Your task to perform on an android device: turn off smart reply in the gmail app Image 0: 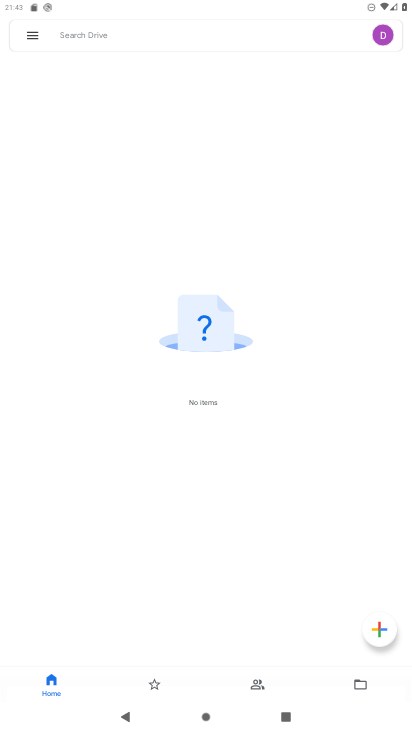
Step 0: press home button
Your task to perform on an android device: turn off smart reply in the gmail app Image 1: 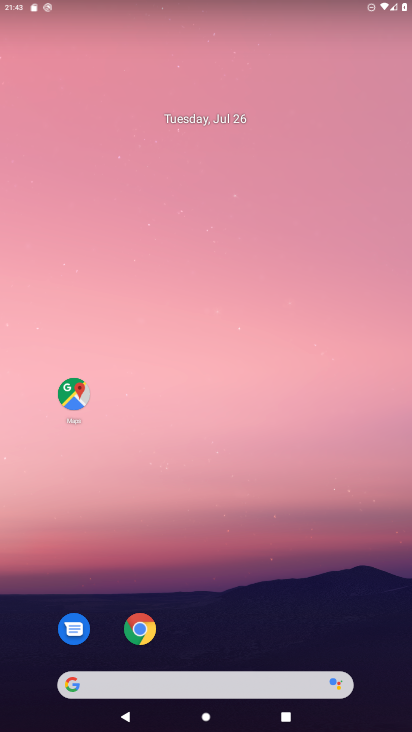
Step 1: drag from (258, 633) to (276, 3)
Your task to perform on an android device: turn off smart reply in the gmail app Image 2: 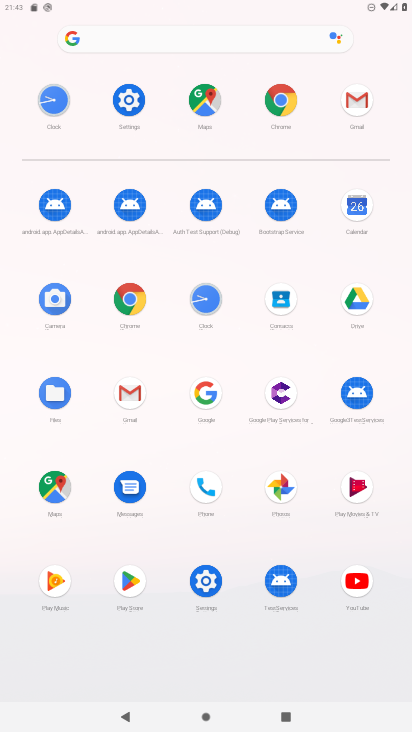
Step 2: click (129, 391)
Your task to perform on an android device: turn off smart reply in the gmail app Image 3: 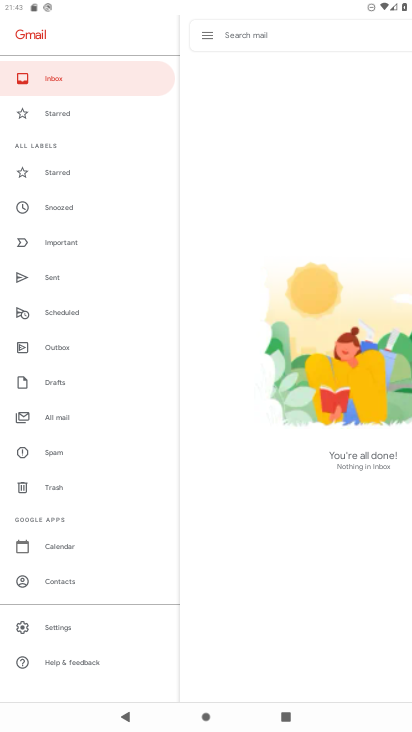
Step 3: click (212, 27)
Your task to perform on an android device: turn off smart reply in the gmail app Image 4: 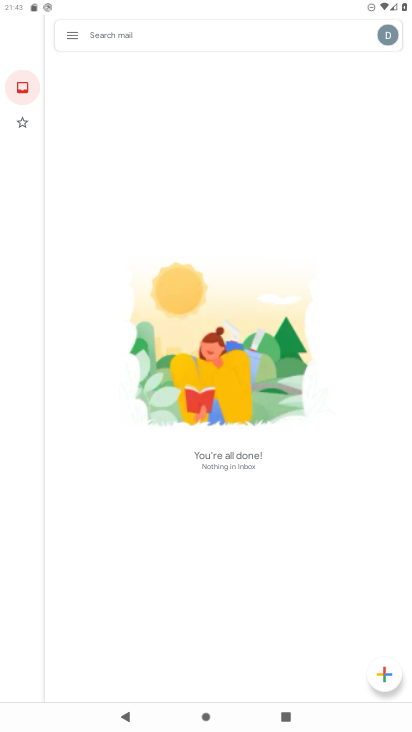
Step 4: click (68, 38)
Your task to perform on an android device: turn off smart reply in the gmail app Image 5: 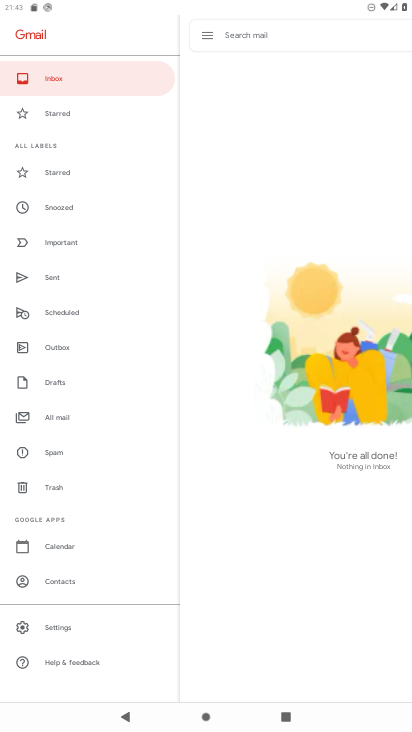
Step 5: click (53, 619)
Your task to perform on an android device: turn off smart reply in the gmail app Image 6: 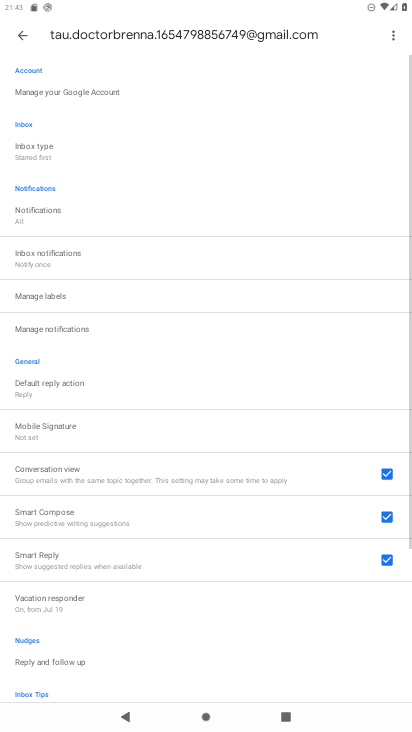
Step 6: drag from (277, 599) to (300, 144)
Your task to perform on an android device: turn off smart reply in the gmail app Image 7: 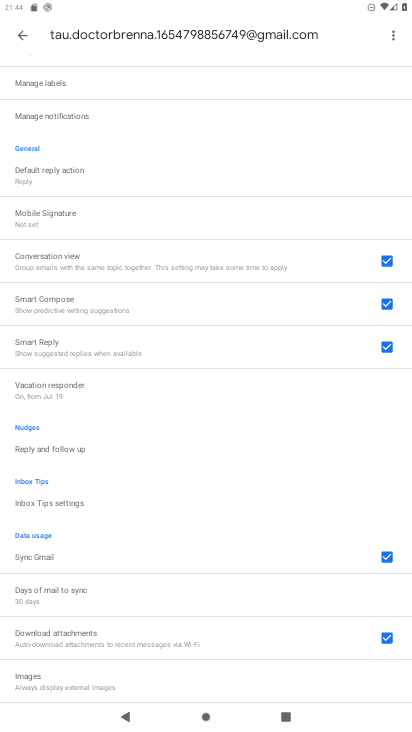
Step 7: click (57, 350)
Your task to perform on an android device: turn off smart reply in the gmail app Image 8: 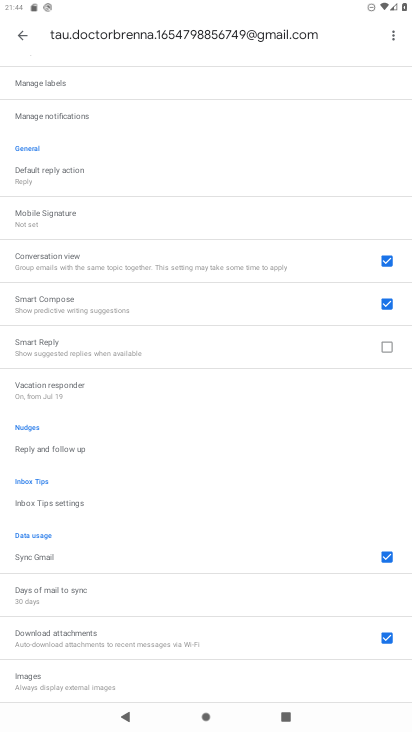
Step 8: task complete